Your task to perform on an android device: Go to location settings Image 0: 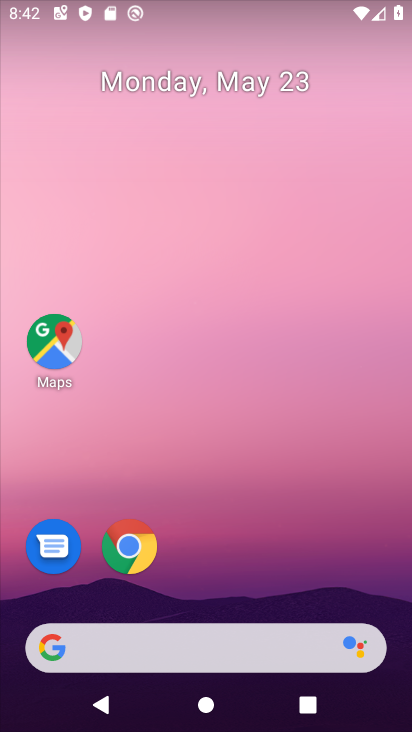
Step 0: drag from (391, 608) to (317, 15)
Your task to perform on an android device: Go to location settings Image 1: 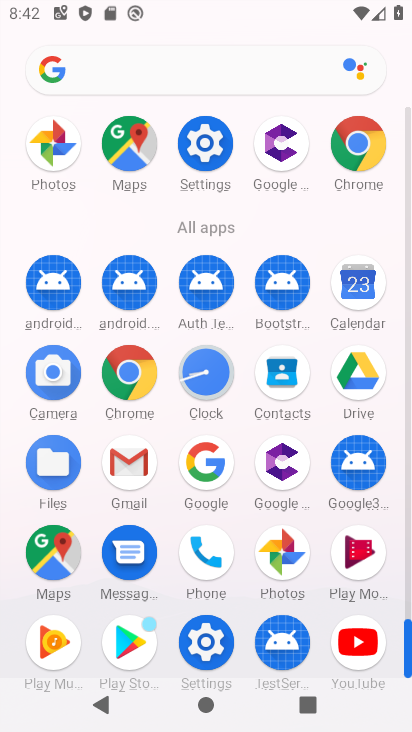
Step 1: click (206, 638)
Your task to perform on an android device: Go to location settings Image 2: 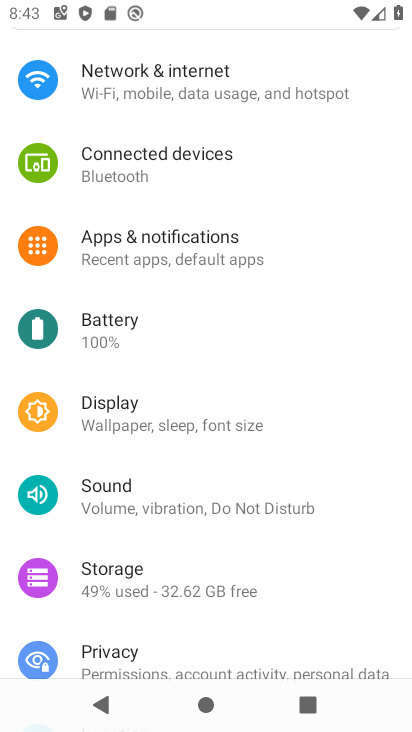
Step 2: drag from (248, 551) to (277, 252)
Your task to perform on an android device: Go to location settings Image 3: 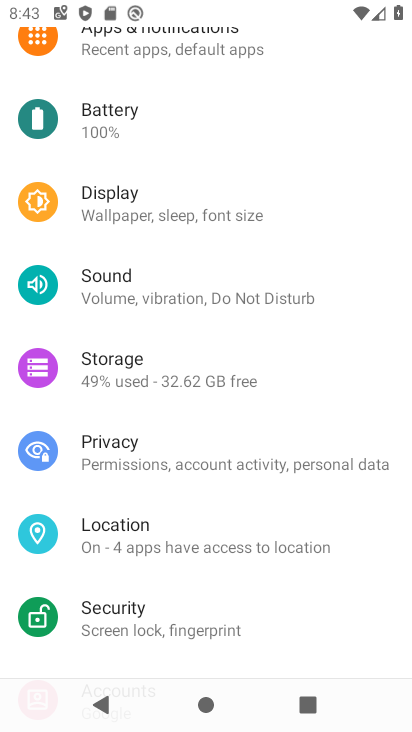
Step 3: click (148, 526)
Your task to perform on an android device: Go to location settings Image 4: 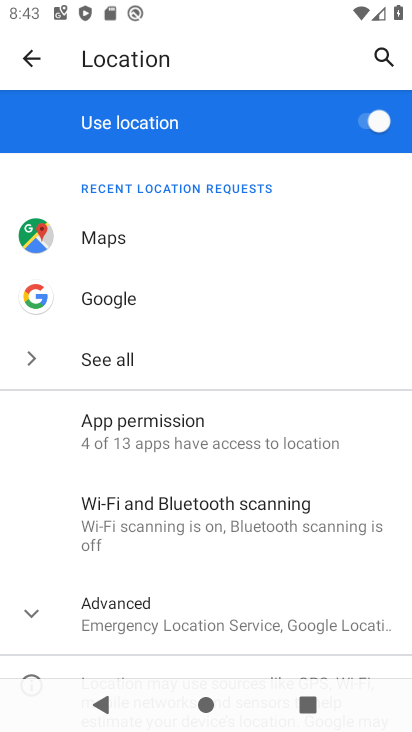
Step 4: drag from (221, 557) to (229, 230)
Your task to perform on an android device: Go to location settings Image 5: 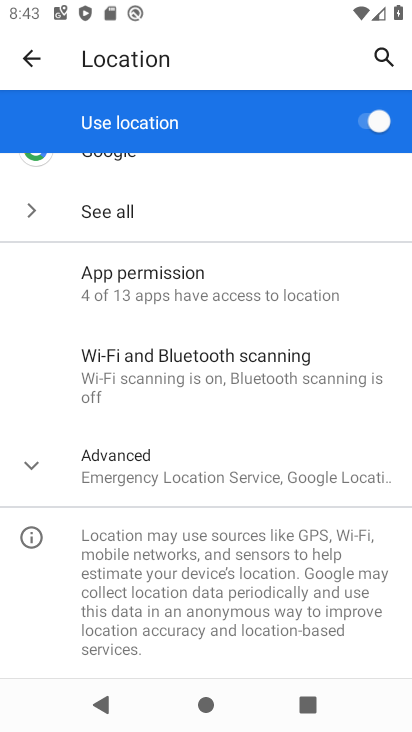
Step 5: click (35, 463)
Your task to perform on an android device: Go to location settings Image 6: 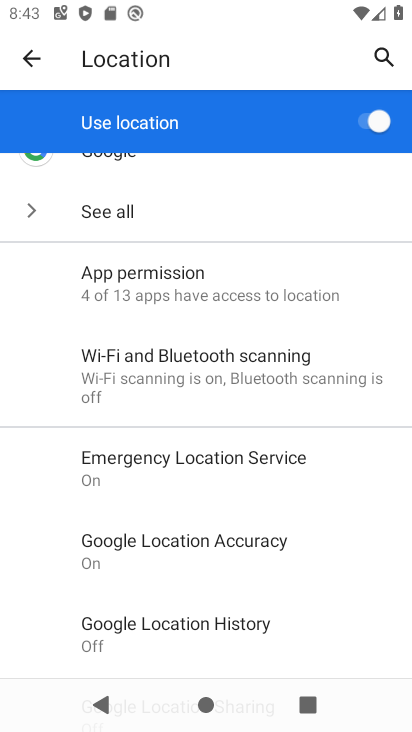
Step 6: task complete